Your task to perform on an android device: open chrome and create a bookmark for the current page Image 0: 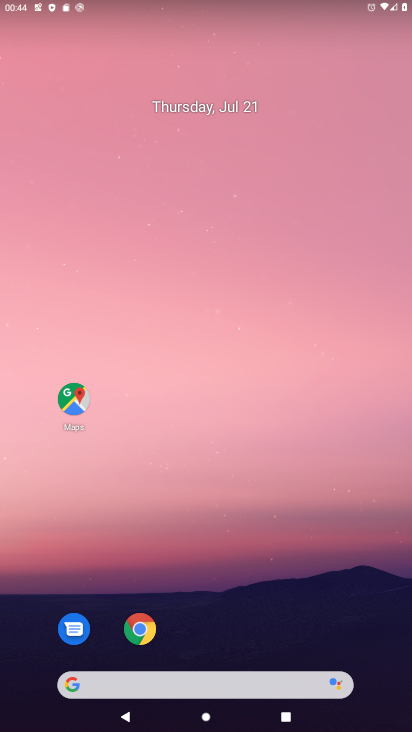
Step 0: drag from (281, 514) to (209, 5)
Your task to perform on an android device: open chrome and create a bookmark for the current page Image 1: 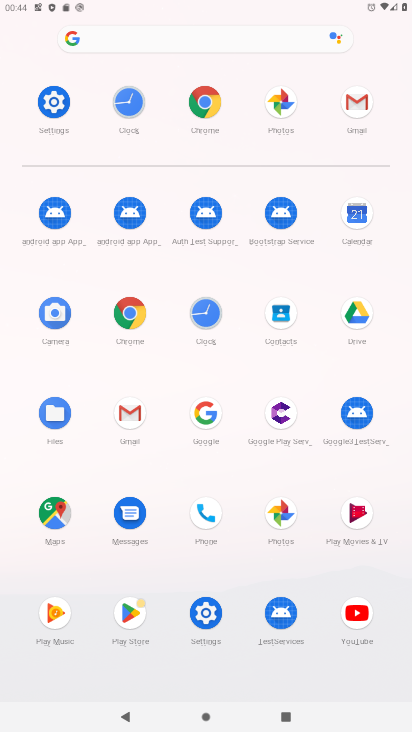
Step 1: click (208, 94)
Your task to perform on an android device: open chrome and create a bookmark for the current page Image 2: 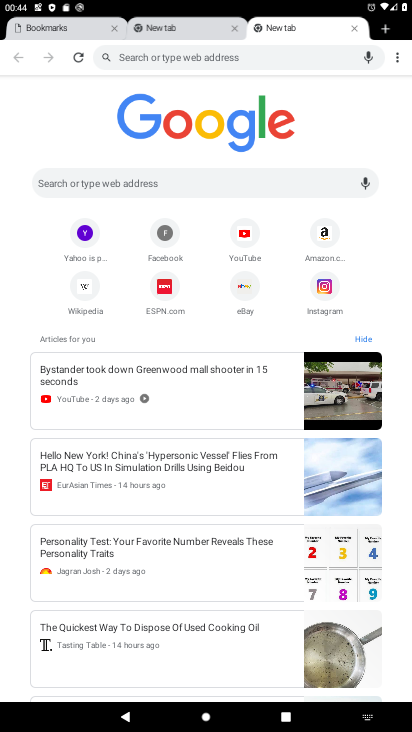
Step 2: task complete